Your task to perform on an android device: check battery use Image 0: 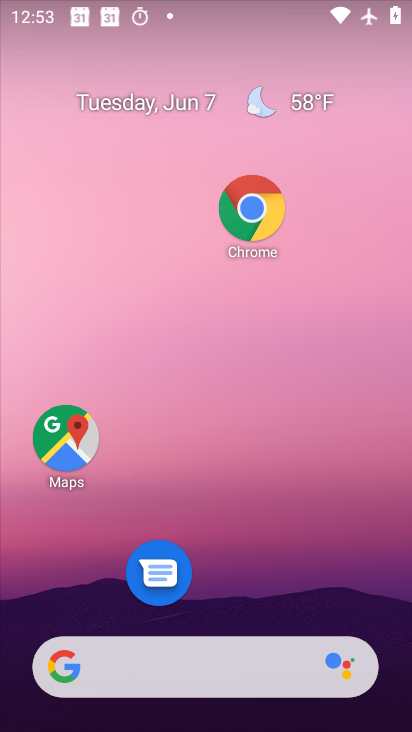
Step 0: drag from (222, 605) to (215, 176)
Your task to perform on an android device: check battery use Image 1: 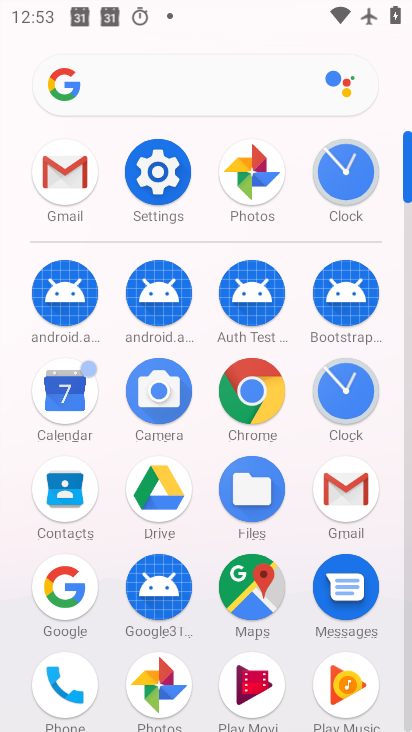
Step 1: click (173, 167)
Your task to perform on an android device: check battery use Image 2: 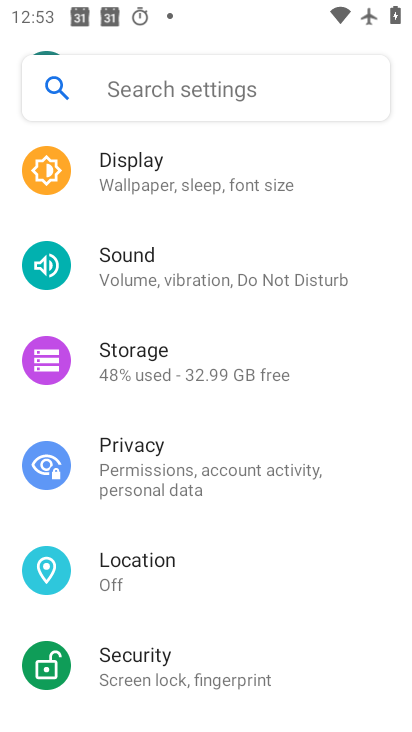
Step 2: drag from (209, 243) to (229, 531)
Your task to perform on an android device: check battery use Image 3: 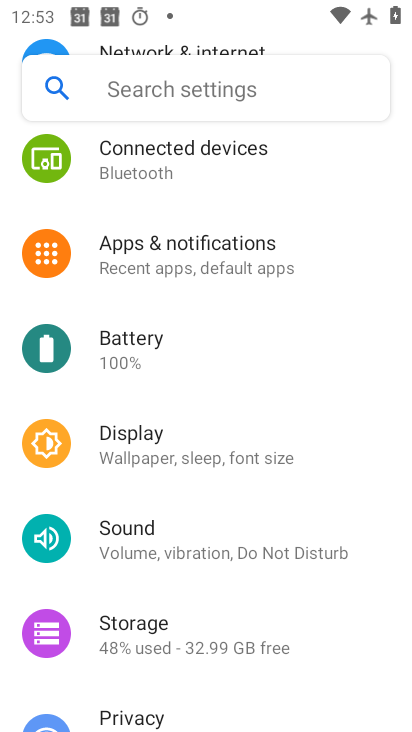
Step 3: click (144, 313)
Your task to perform on an android device: check battery use Image 4: 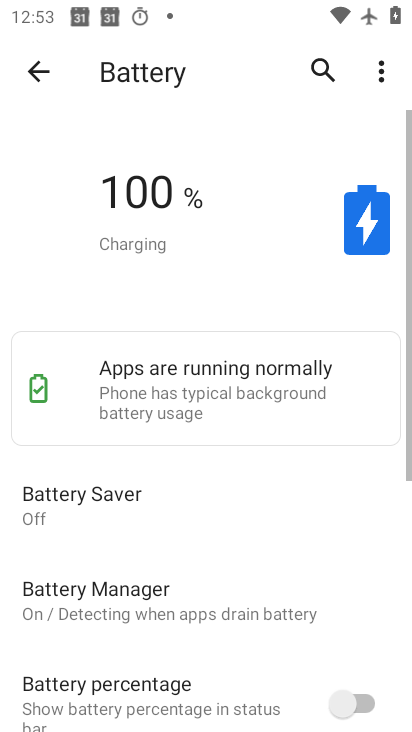
Step 4: drag from (203, 611) to (214, 427)
Your task to perform on an android device: check battery use Image 5: 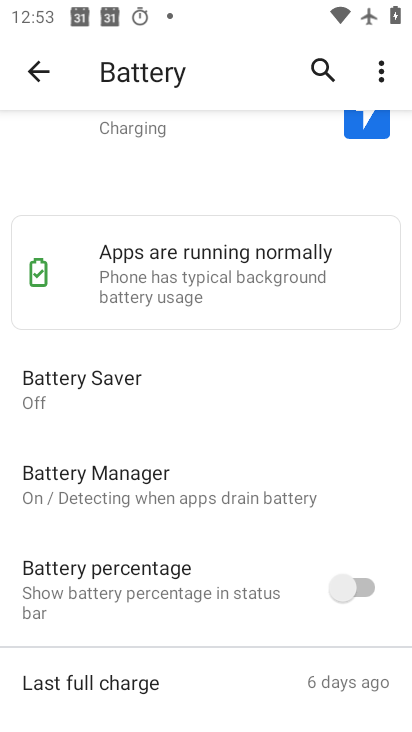
Step 5: click (379, 80)
Your task to perform on an android device: check battery use Image 6: 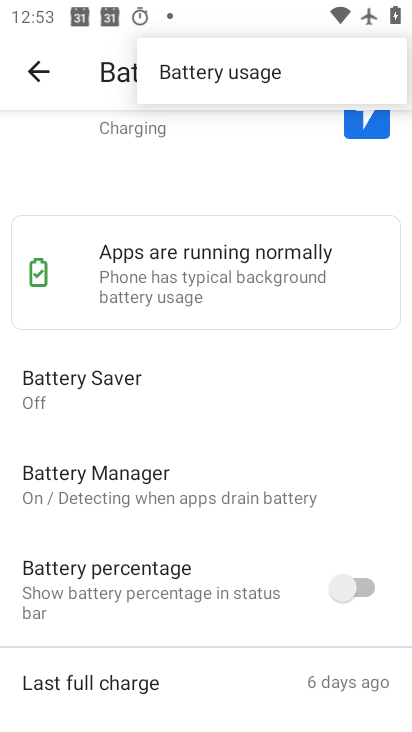
Step 6: click (185, 72)
Your task to perform on an android device: check battery use Image 7: 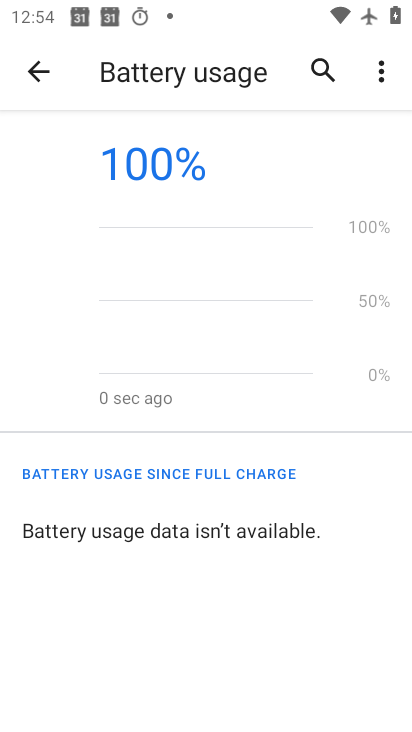
Step 7: click (379, 81)
Your task to perform on an android device: check battery use Image 8: 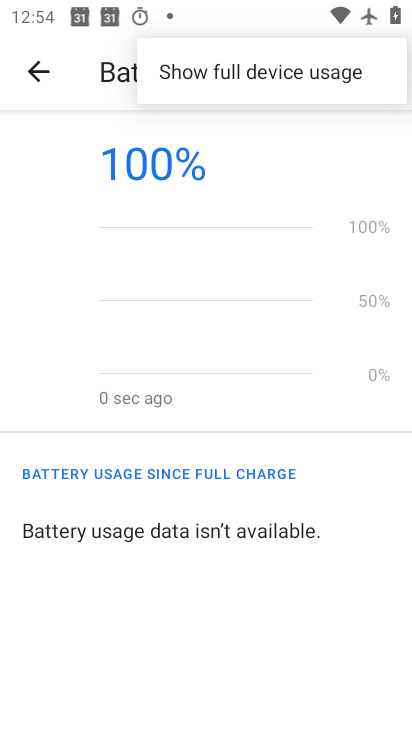
Step 8: click (234, 643)
Your task to perform on an android device: check battery use Image 9: 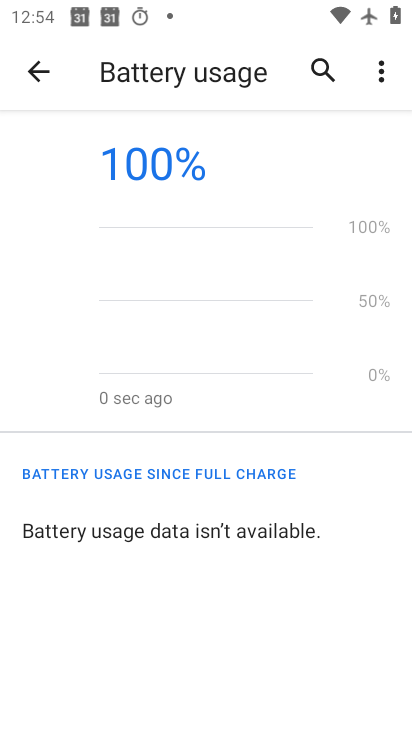
Step 9: task complete